Your task to perform on an android device: What's the weather? Image 0: 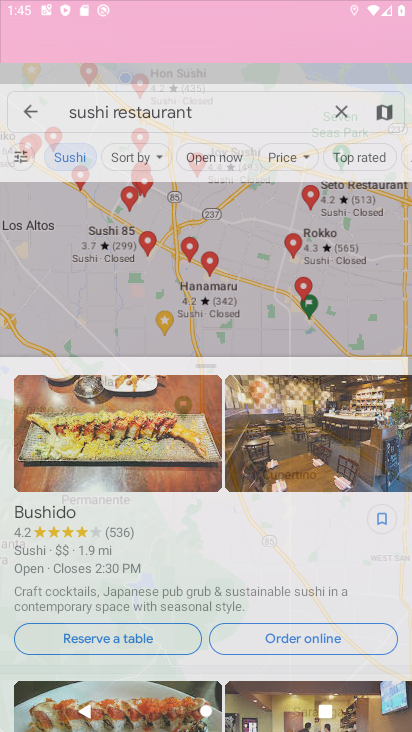
Step 0: click (202, 215)
Your task to perform on an android device: What's the weather? Image 1: 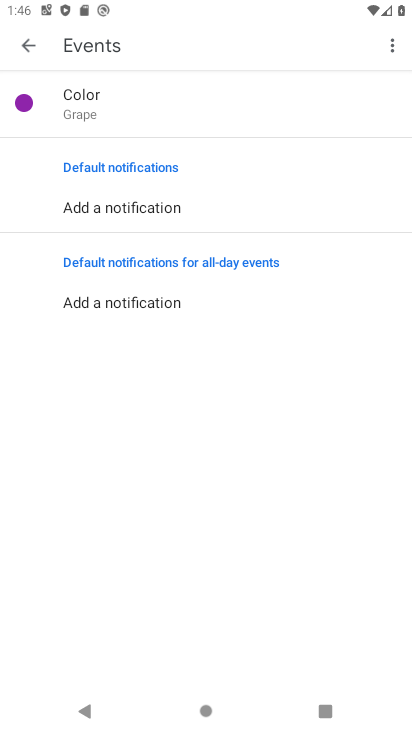
Step 1: press home button
Your task to perform on an android device: What's the weather? Image 2: 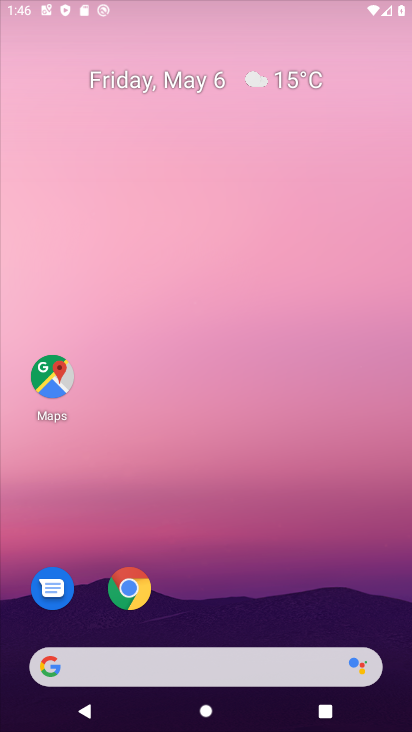
Step 2: drag from (223, 634) to (258, 179)
Your task to perform on an android device: What's the weather? Image 3: 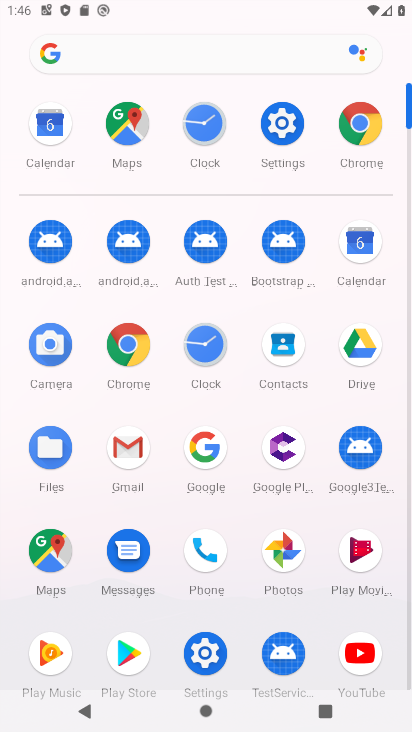
Step 3: drag from (235, 665) to (267, 267)
Your task to perform on an android device: What's the weather? Image 4: 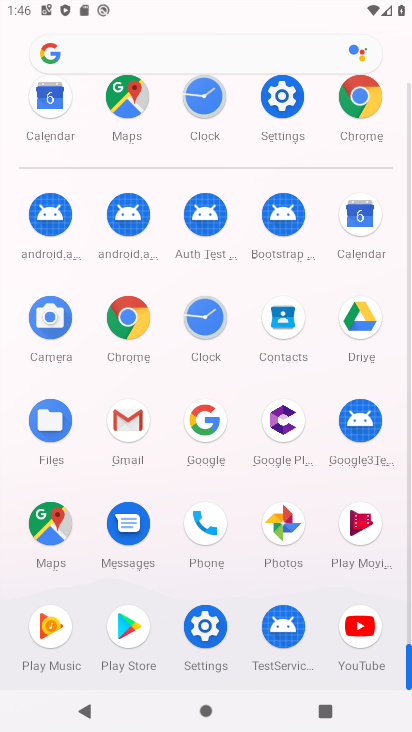
Step 4: click (242, 45)
Your task to perform on an android device: What's the weather? Image 5: 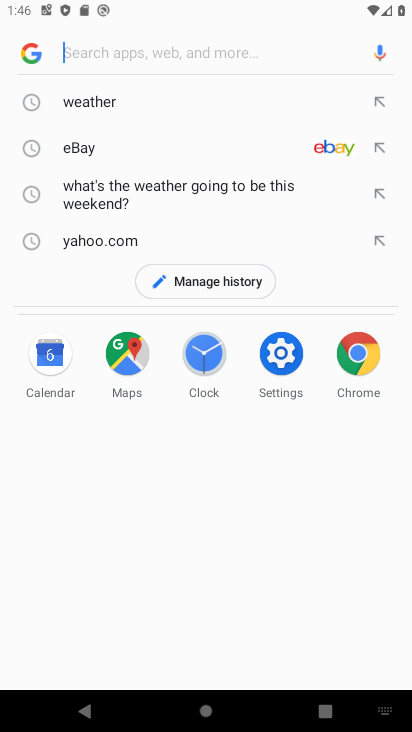
Step 5: click (131, 83)
Your task to perform on an android device: What's the weather? Image 6: 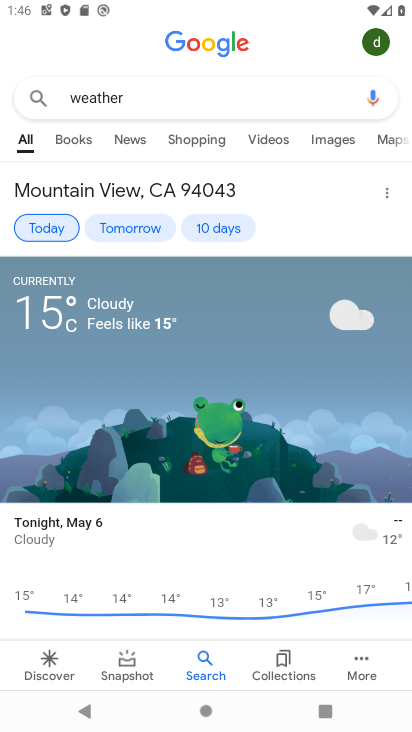
Step 6: task complete